Your task to perform on an android device: Clear all items from cart on ebay.com. Add "beats solo 3" to the cart on ebay.com, then select checkout. Image 0: 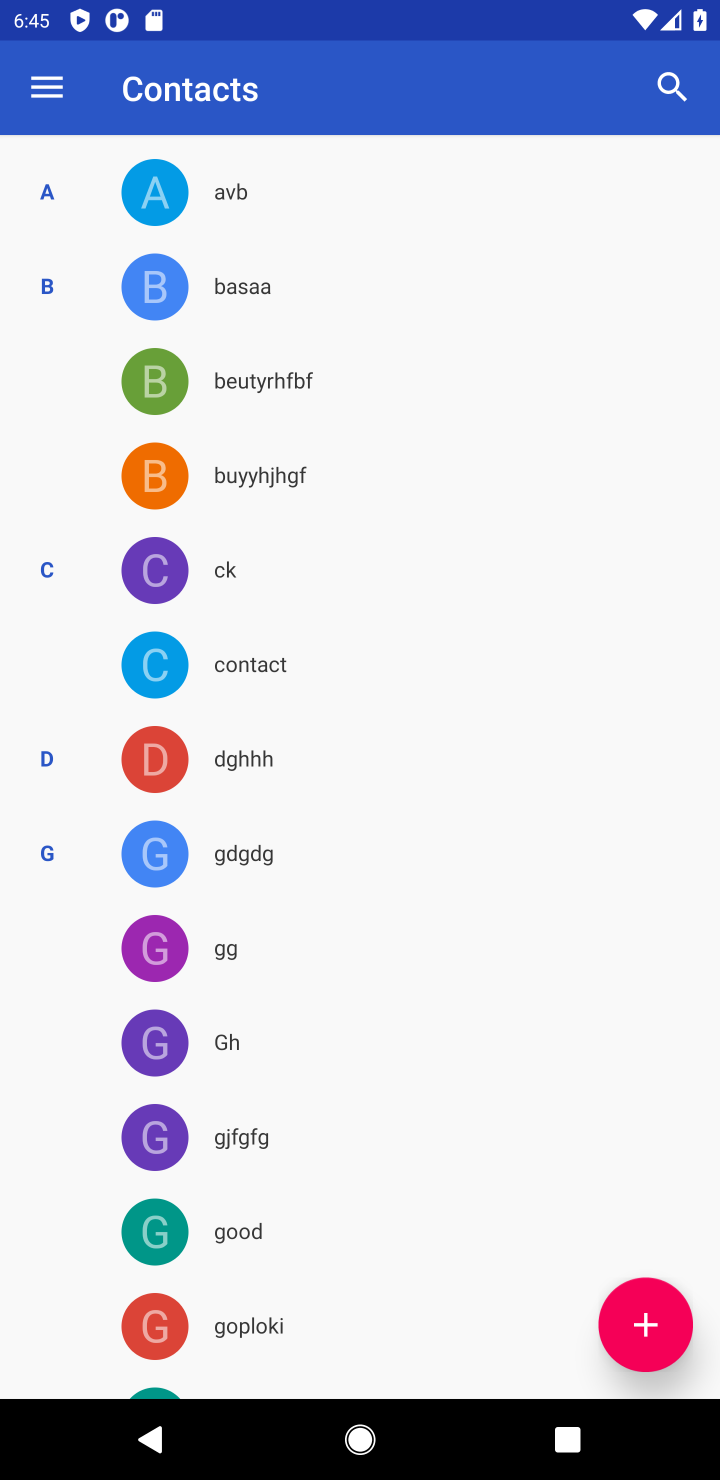
Step 0: press home button
Your task to perform on an android device: Clear all items from cart on ebay.com. Add "beats solo 3" to the cart on ebay.com, then select checkout. Image 1: 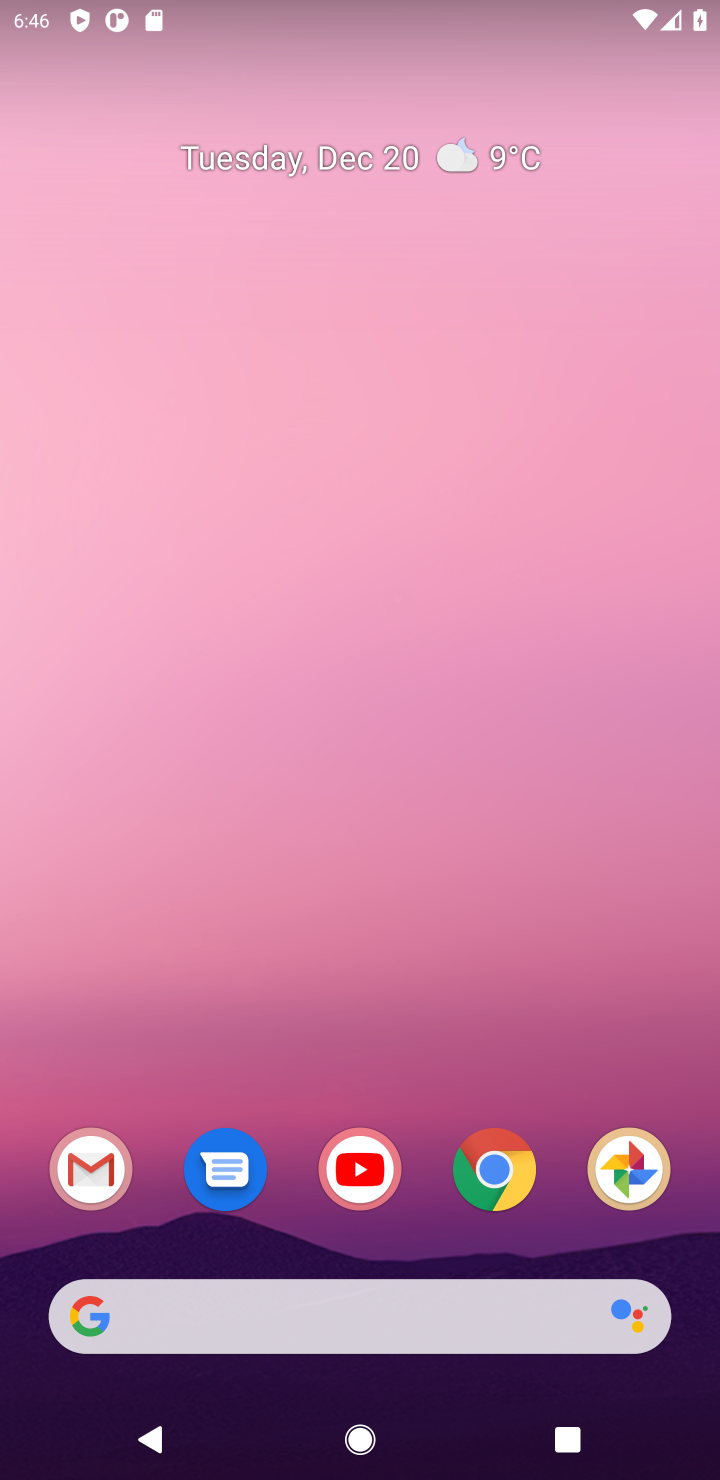
Step 1: click (486, 1136)
Your task to perform on an android device: Clear all items from cart on ebay.com. Add "beats solo 3" to the cart on ebay.com, then select checkout. Image 2: 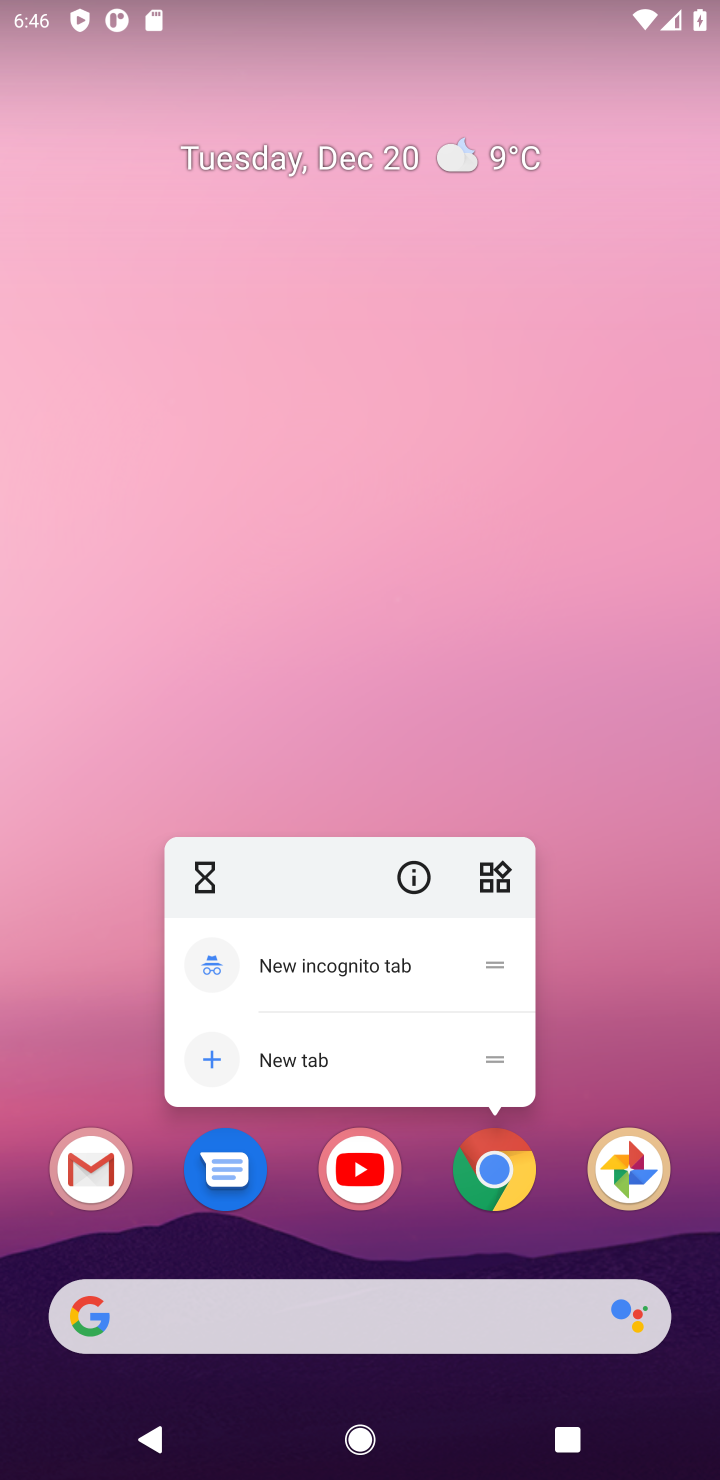
Step 2: click (486, 1136)
Your task to perform on an android device: Clear all items from cart on ebay.com. Add "beats solo 3" to the cart on ebay.com, then select checkout. Image 3: 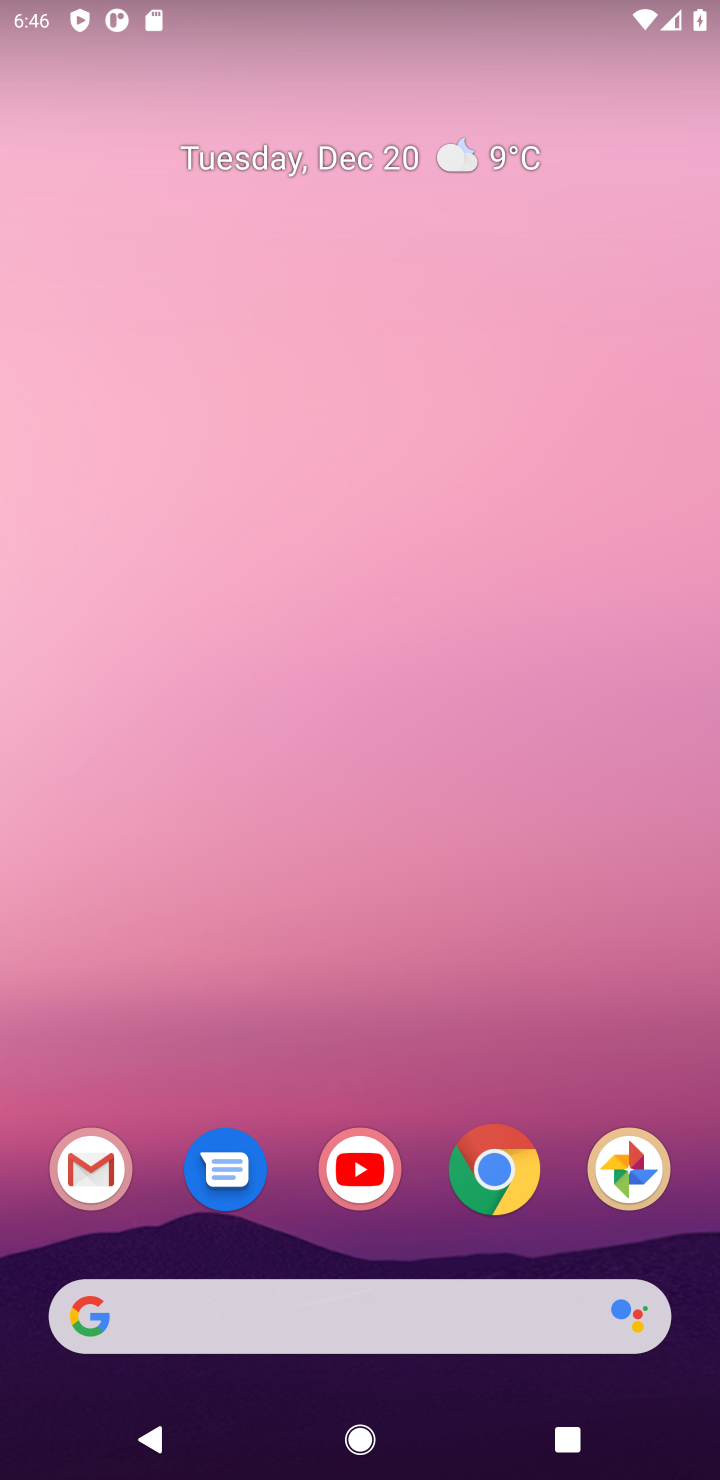
Step 3: click (501, 1161)
Your task to perform on an android device: Clear all items from cart on ebay.com. Add "beats solo 3" to the cart on ebay.com, then select checkout. Image 4: 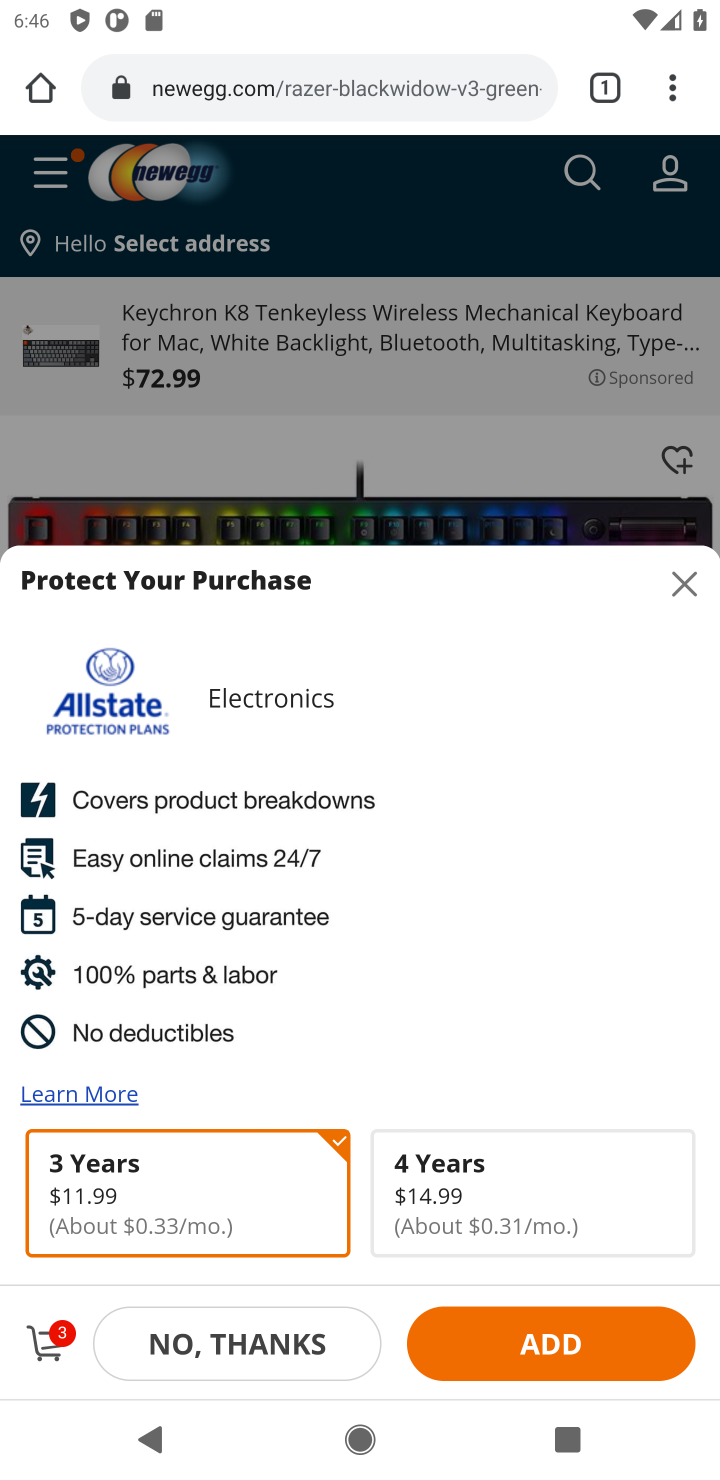
Step 4: task complete